Your task to perform on an android device: Set the phone to "Do not disturb". Image 0: 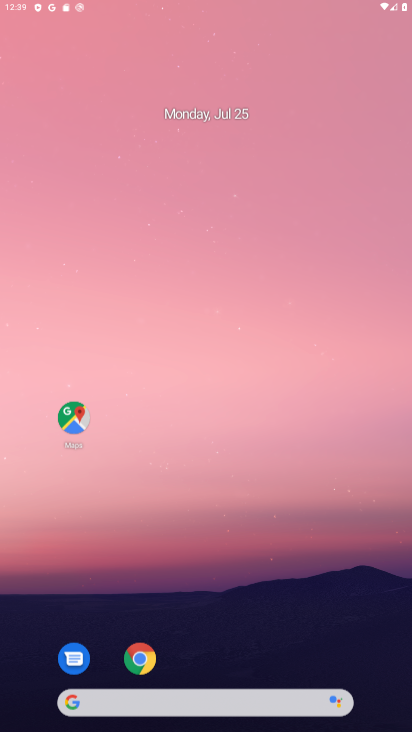
Step 0: drag from (226, 83) to (242, 256)
Your task to perform on an android device: Set the phone to "Do not disturb". Image 1: 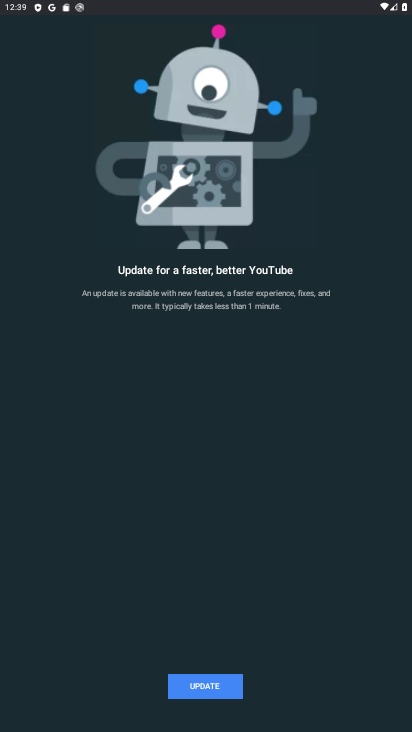
Step 1: press back button
Your task to perform on an android device: Set the phone to "Do not disturb". Image 2: 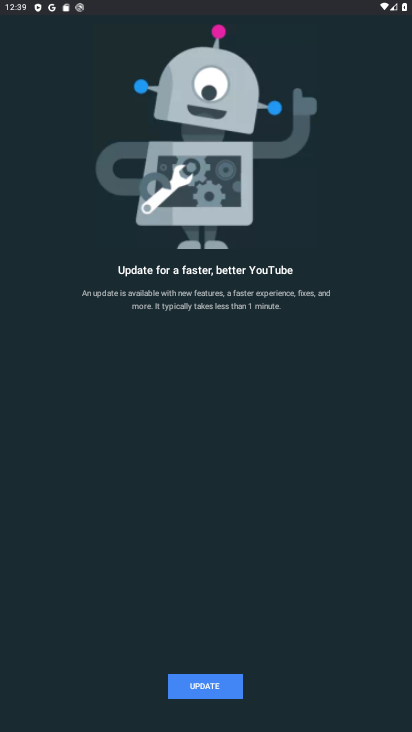
Step 2: press back button
Your task to perform on an android device: Set the phone to "Do not disturb". Image 3: 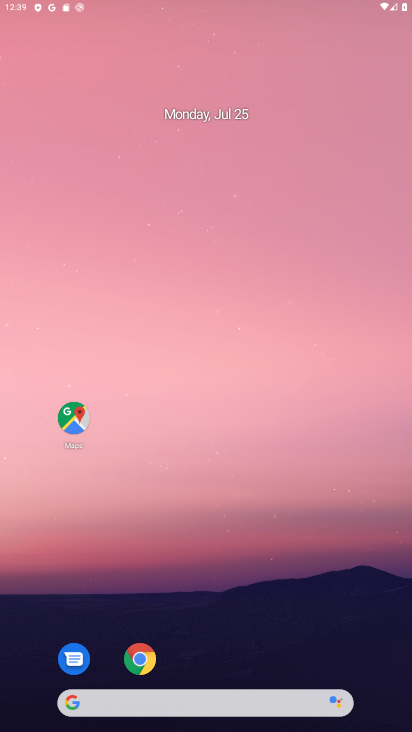
Step 3: drag from (257, 537) to (277, 311)
Your task to perform on an android device: Set the phone to "Do not disturb". Image 4: 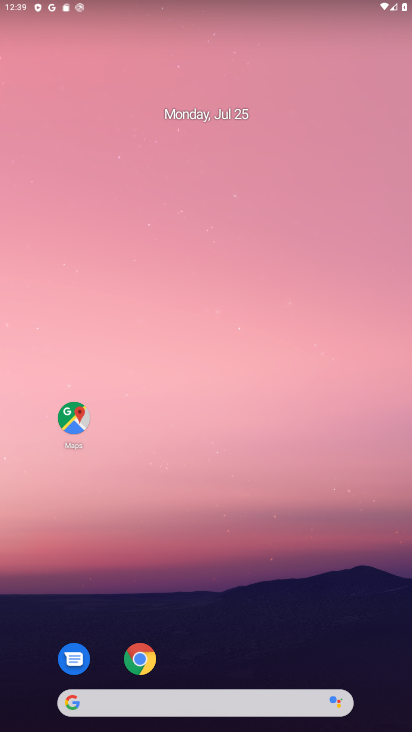
Step 4: click (316, 223)
Your task to perform on an android device: Set the phone to "Do not disturb". Image 5: 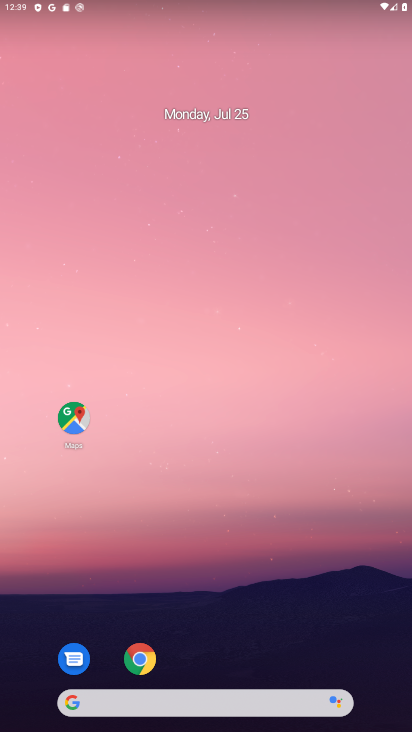
Step 5: drag from (244, 532) to (244, 135)
Your task to perform on an android device: Set the phone to "Do not disturb". Image 6: 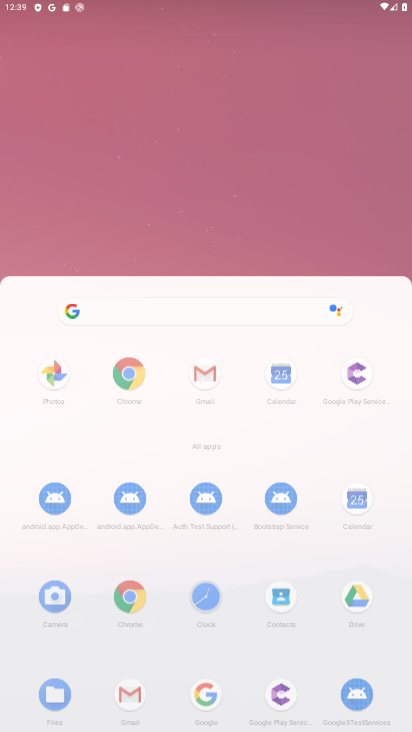
Step 6: drag from (197, 526) to (186, 78)
Your task to perform on an android device: Set the phone to "Do not disturb". Image 7: 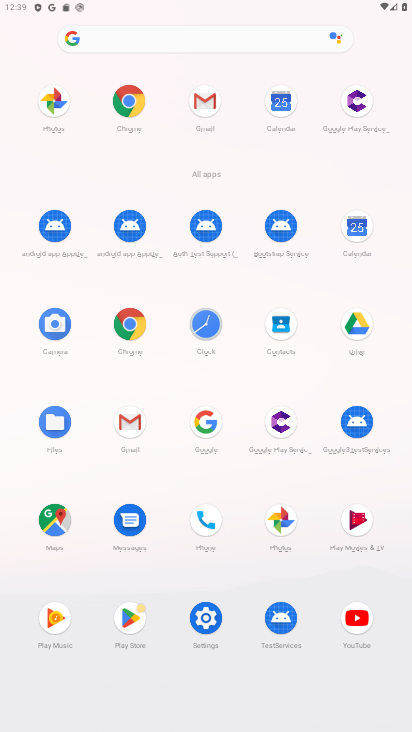
Step 7: click (208, 612)
Your task to perform on an android device: Set the phone to "Do not disturb". Image 8: 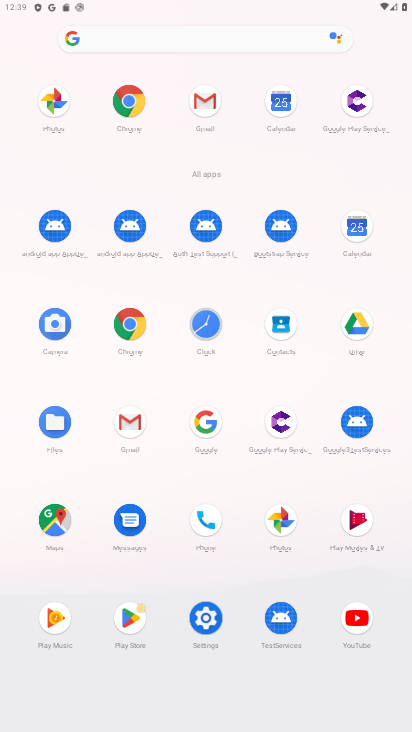
Step 8: click (207, 611)
Your task to perform on an android device: Set the phone to "Do not disturb". Image 9: 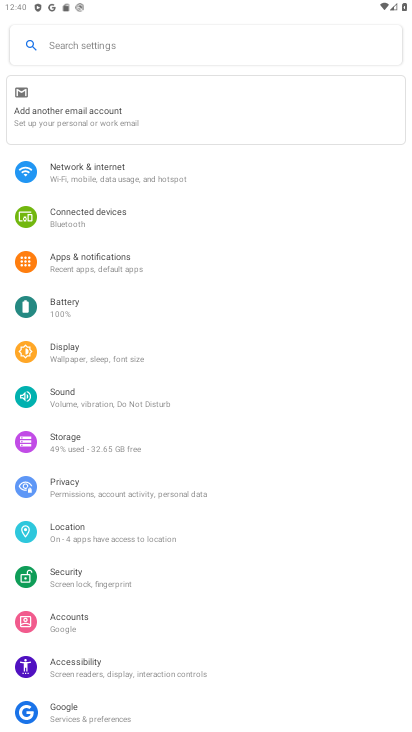
Step 9: click (76, 398)
Your task to perform on an android device: Set the phone to "Do not disturb". Image 10: 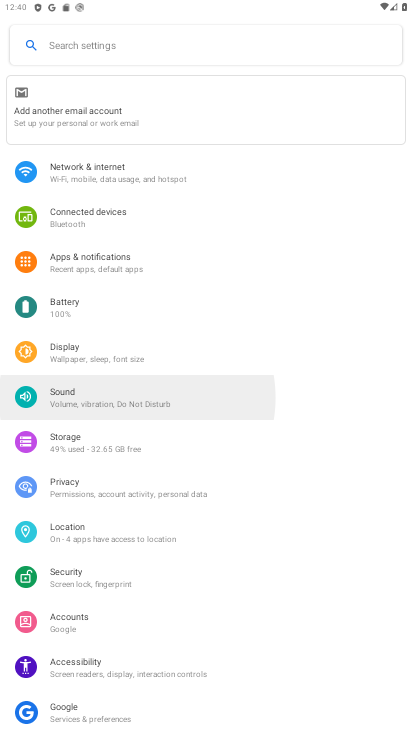
Step 10: click (84, 405)
Your task to perform on an android device: Set the phone to "Do not disturb". Image 11: 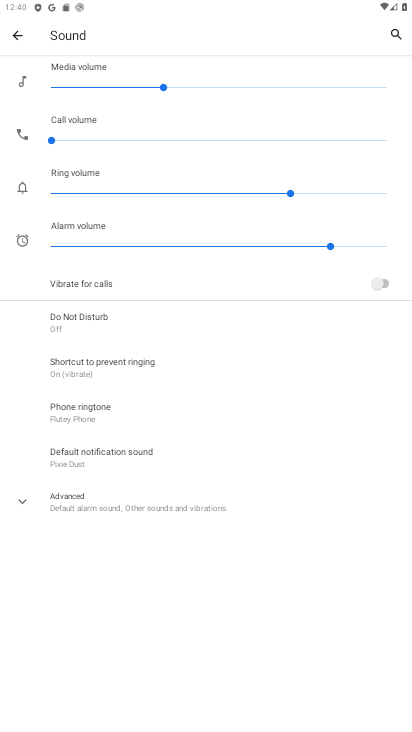
Step 11: click (62, 310)
Your task to perform on an android device: Set the phone to "Do not disturb". Image 12: 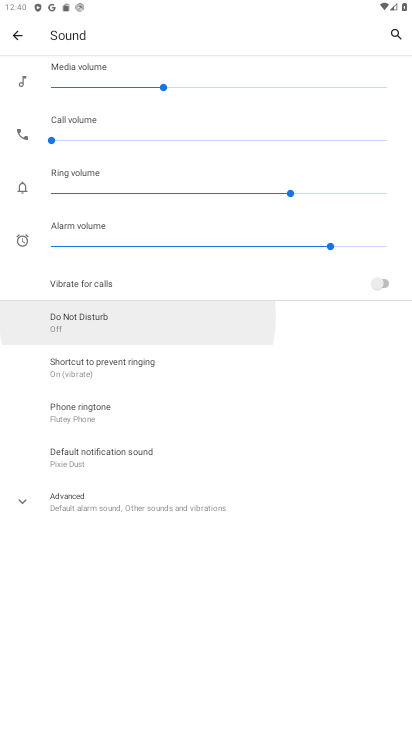
Step 12: click (62, 310)
Your task to perform on an android device: Set the phone to "Do not disturb". Image 13: 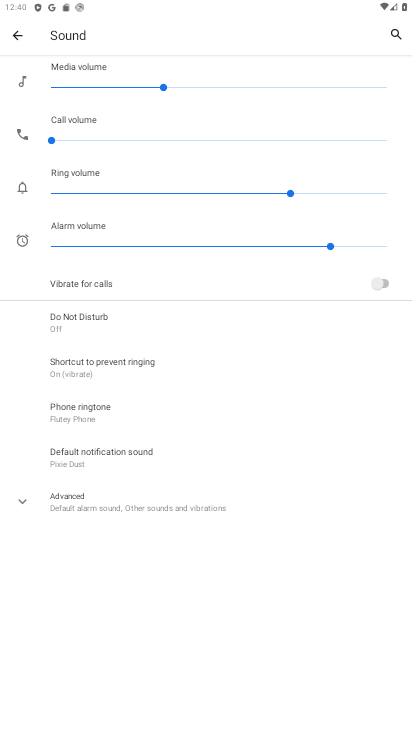
Step 13: click (62, 313)
Your task to perform on an android device: Set the phone to "Do not disturb". Image 14: 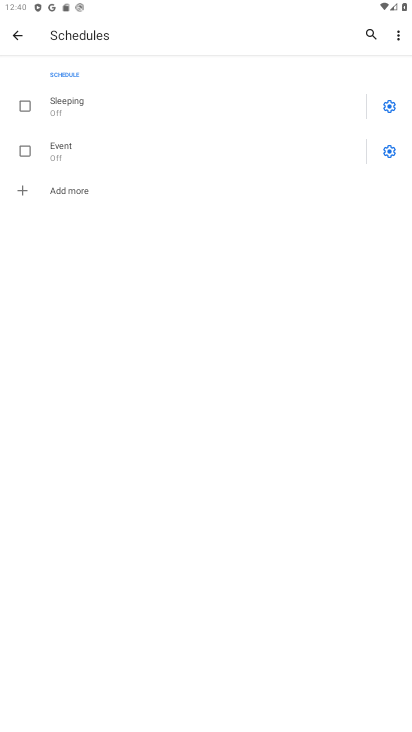
Step 14: click (18, 37)
Your task to perform on an android device: Set the phone to "Do not disturb". Image 15: 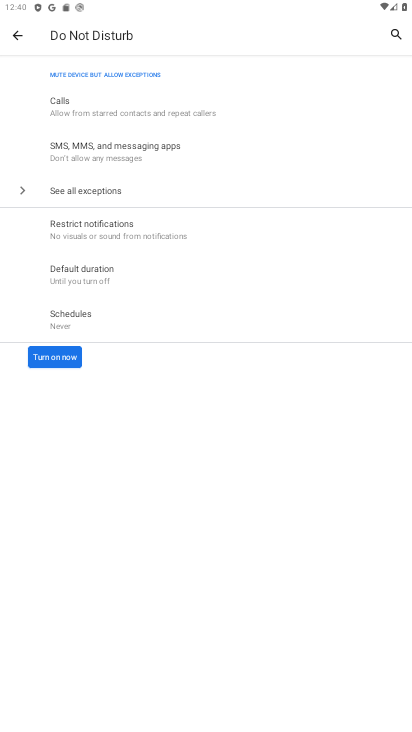
Step 15: click (50, 360)
Your task to perform on an android device: Set the phone to "Do not disturb". Image 16: 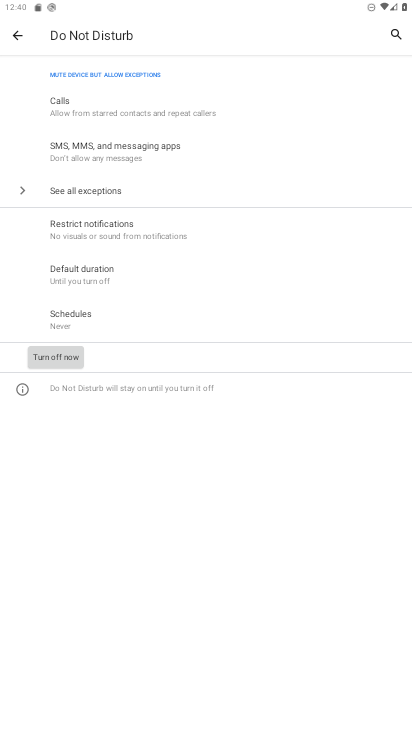
Step 16: task complete